Your task to perform on an android device: toggle priority inbox in the gmail app Image 0: 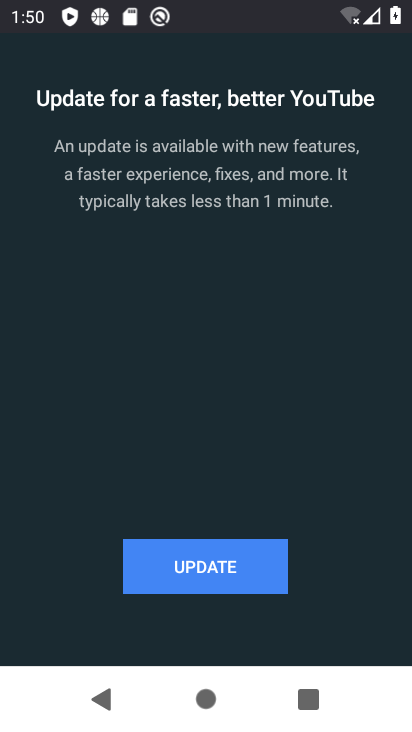
Step 0: press back button
Your task to perform on an android device: toggle priority inbox in the gmail app Image 1: 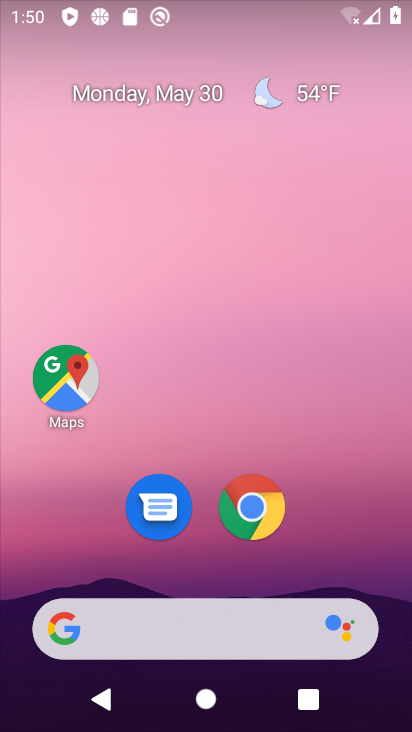
Step 1: drag from (404, 636) to (230, 11)
Your task to perform on an android device: toggle priority inbox in the gmail app Image 2: 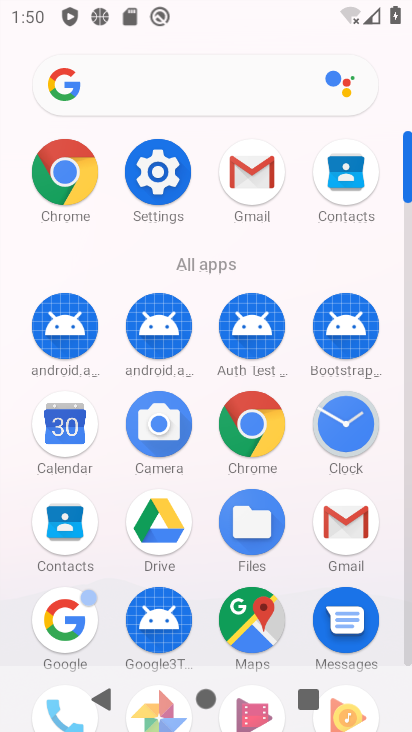
Step 2: click (336, 518)
Your task to perform on an android device: toggle priority inbox in the gmail app Image 3: 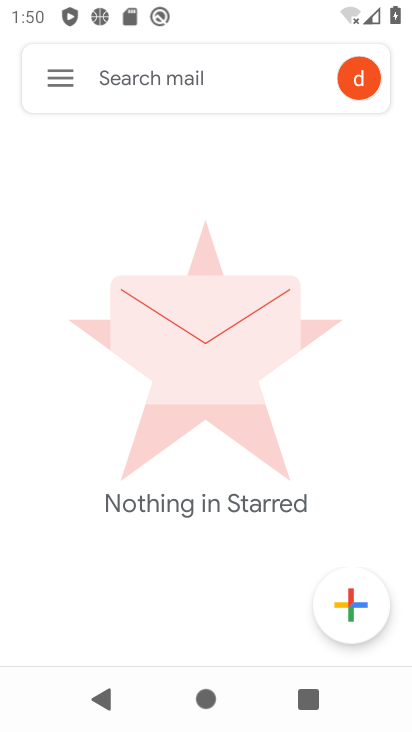
Step 3: click (54, 76)
Your task to perform on an android device: toggle priority inbox in the gmail app Image 4: 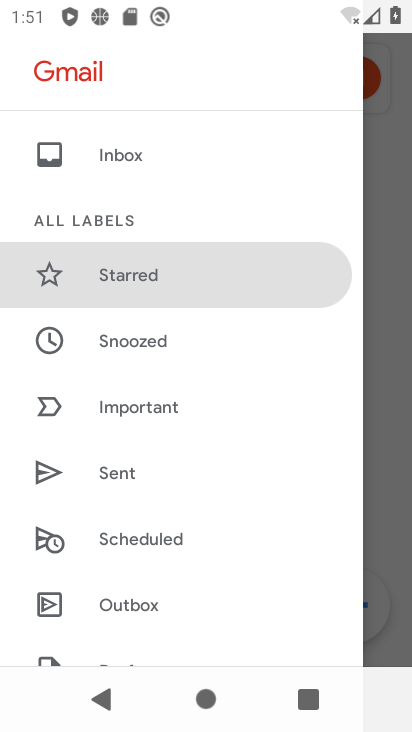
Step 4: drag from (121, 594) to (141, 98)
Your task to perform on an android device: toggle priority inbox in the gmail app Image 5: 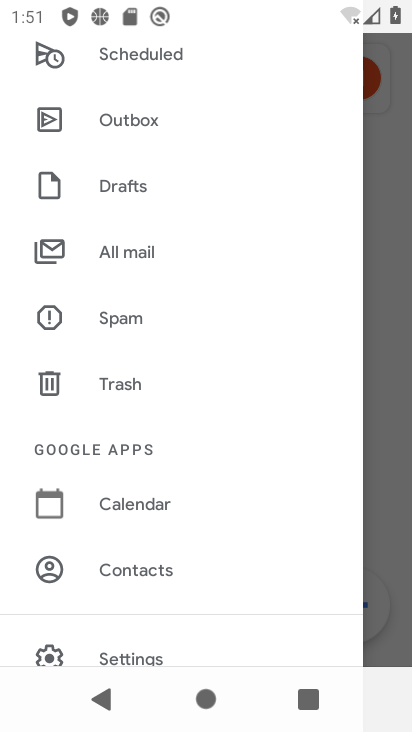
Step 5: drag from (149, 533) to (205, 152)
Your task to perform on an android device: toggle priority inbox in the gmail app Image 6: 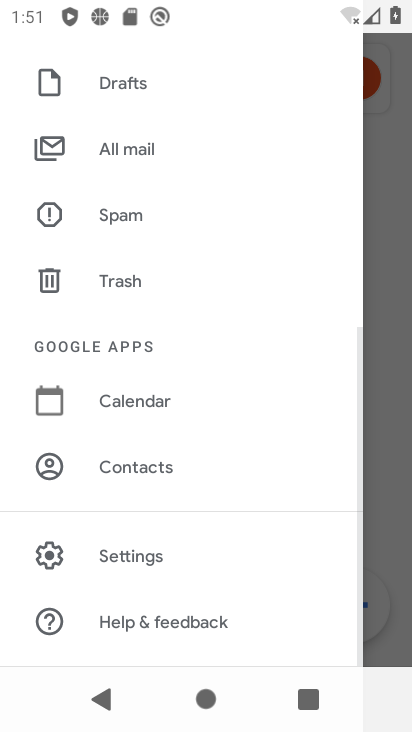
Step 6: click (111, 575)
Your task to perform on an android device: toggle priority inbox in the gmail app Image 7: 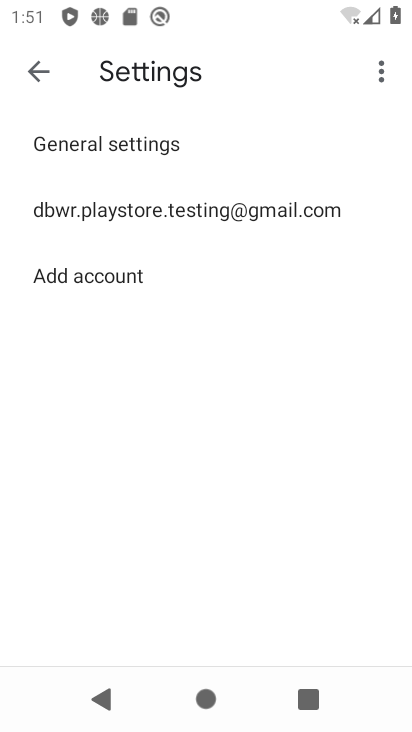
Step 7: click (188, 218)
Your task to perform on an android device: toggle priority inbox in the gmail app Image 8: 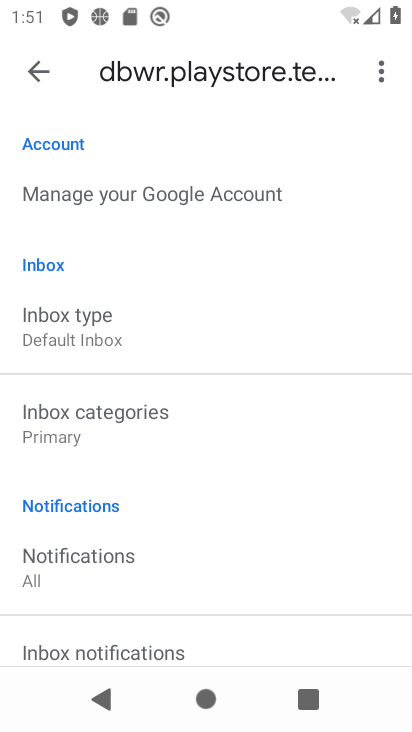
Step 8: click (84, 323)
Your task to perform on an android device: toggle priority inbox in the gmail app Image 9: 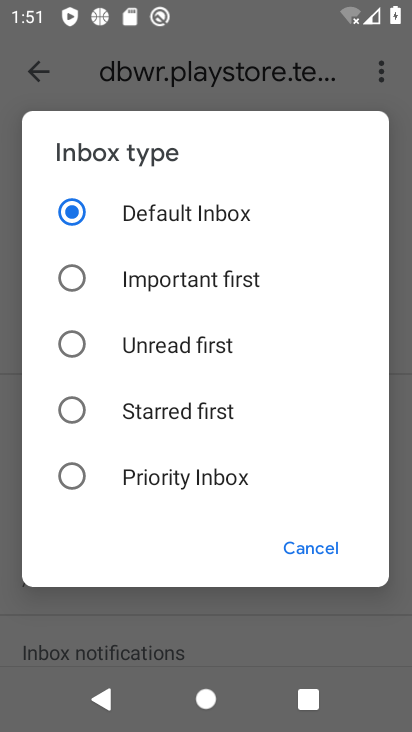
Step 9: click (71, 480)
Your task to perform on an android device: toggle priority inbox in the gmail app Image 10: 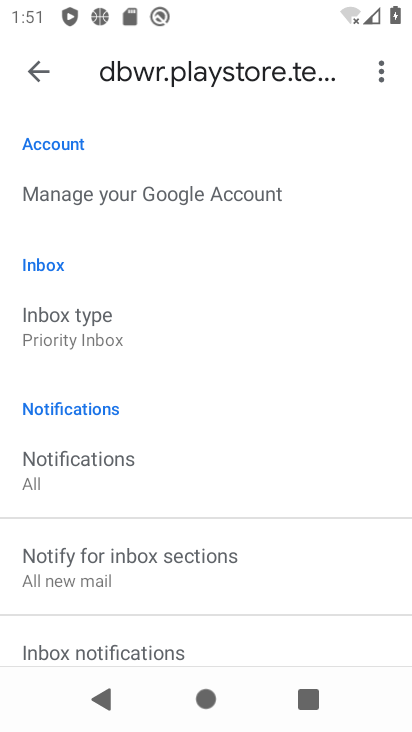
Step 10: task complete